Your task to perform on an android device: check storage Image 0: 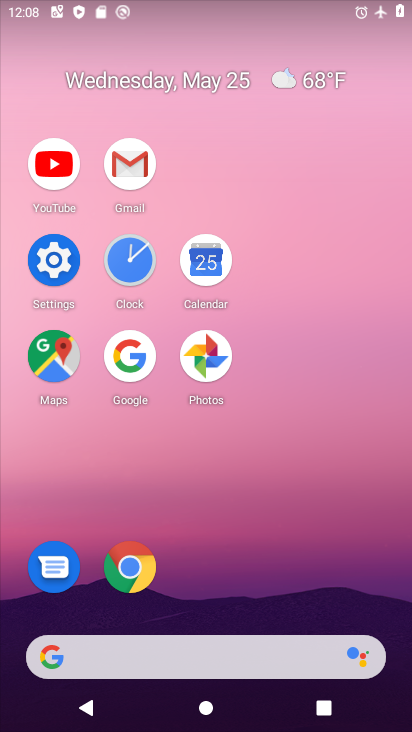
Step 0: click (59, 255)
Your task to perform on an android device: check storage Image 1: 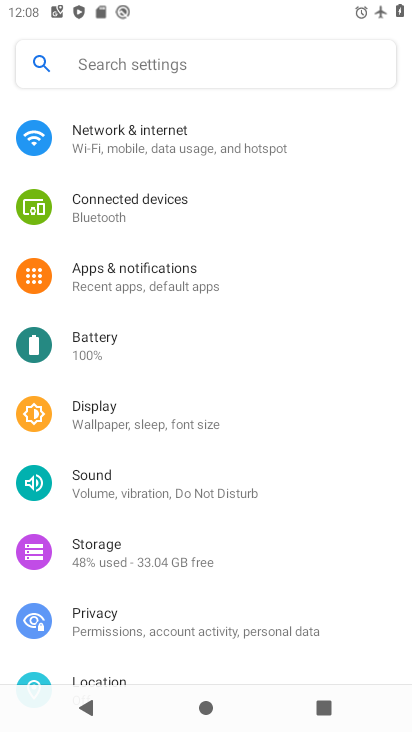
Step 1: click (177, 573)
Your task to perform on an android device: check storage Image 2: 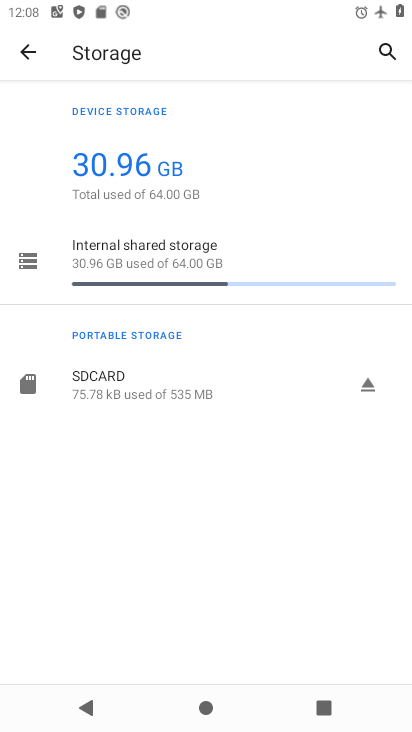
Step 2: task complete